Your task to perform on an android device: Go to Google Image 0: 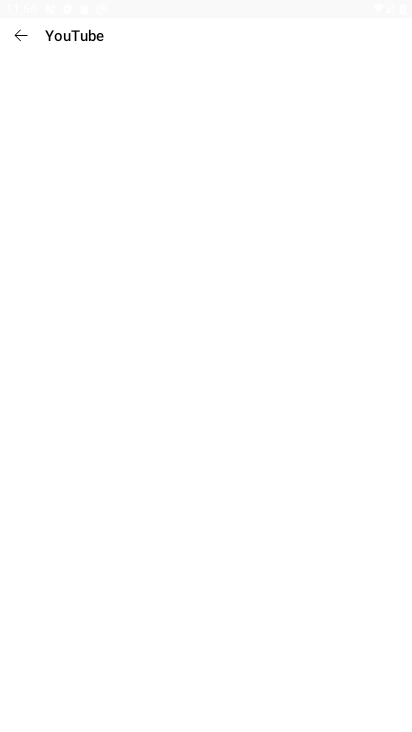
Step 0: press home button
Your task to perform on an android device: Go to Google Image 1: 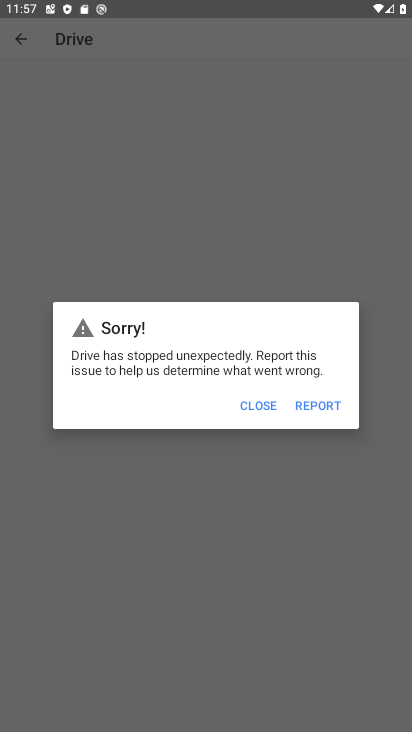
Step 1: click (385, 203)
Your task to perform on an android device: Go to Google Image 2: 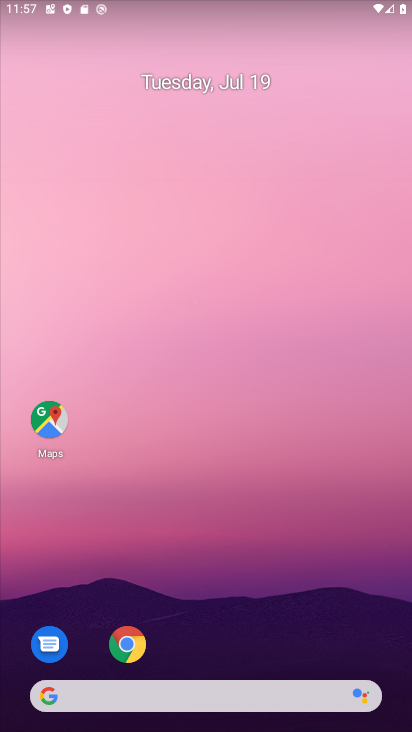
Step 2: drag from (348, 617) to (341, 172)
Your task to perform on an android device: Go to Google Image 3: 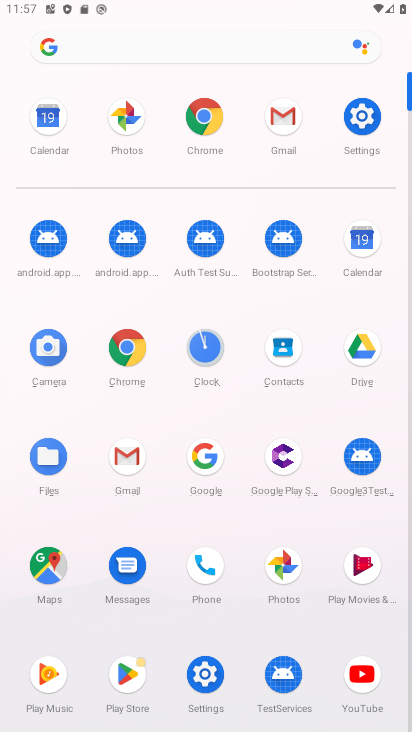
Step 3: click (197, 460)
Your task to perform on an android device: Go to Google Image 4: 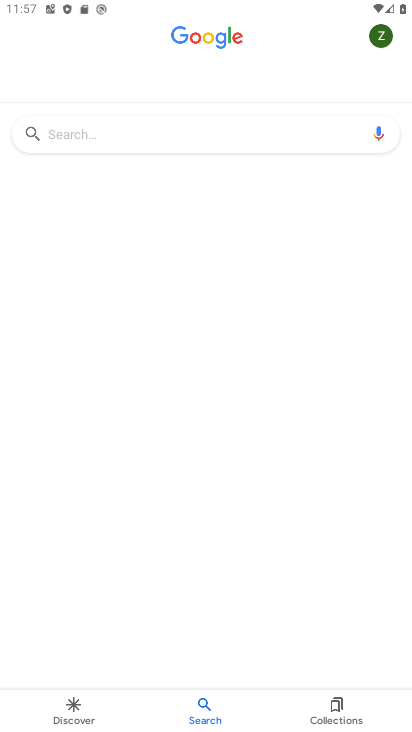
Step 4: click (222, 237)
Your task to perform on an android device: Go to Google Image 5: 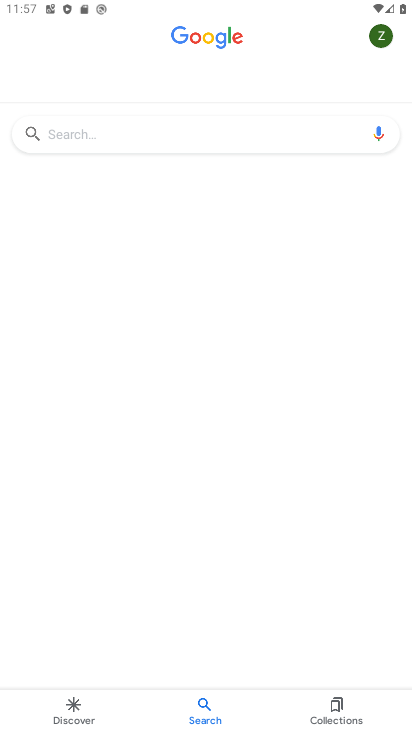
Step 5: task complete